Your task to perform on an android device: Add "bose quietcomfort 35" to the cart on costco, then select checkout. Image 0: 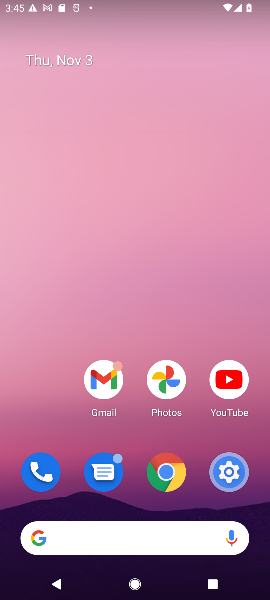
Step 0: click (160, 540)
Your task to perform on an android device: Add "bose quietcomfort 35" to the cart on costco, then select checkout. Image 1: 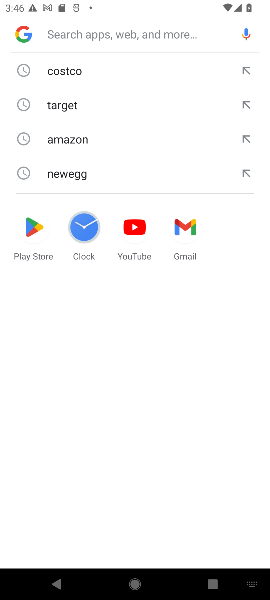
Step 1: type "bose quietcomfort"
Your task to perform on an android device: Add "bose quietcomfort 35" to the cart on costco, then select checkout. Image 2: 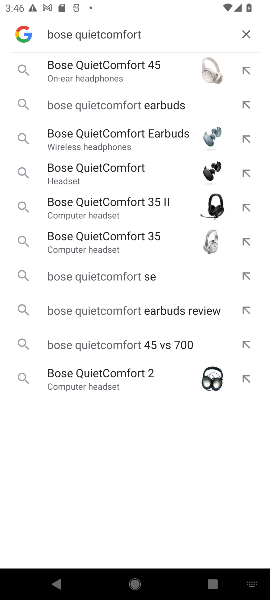
Step 2: click (92, 83)
Your task to perform on an android device: Add "bose quietcomfort 35" to the cart on costco, then select checkout. Image 3: 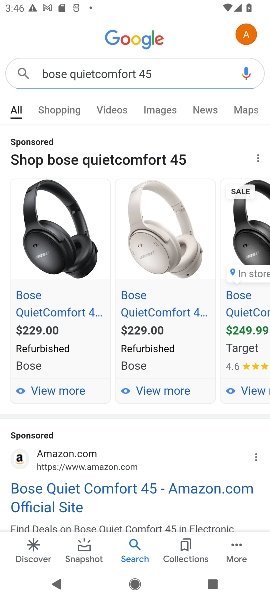
Step 3: click (56, 297)
Your task to perform on an android device: Add "bose quietcomfort 35" to the cart on costco, then select checkout. Image 4: 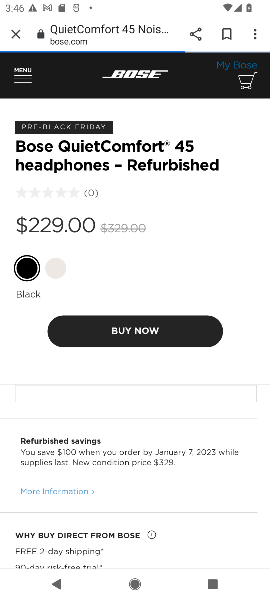
Step 4: task complete